Your task to perform on an android device: Go to calendar. Show me events next week Image 0: 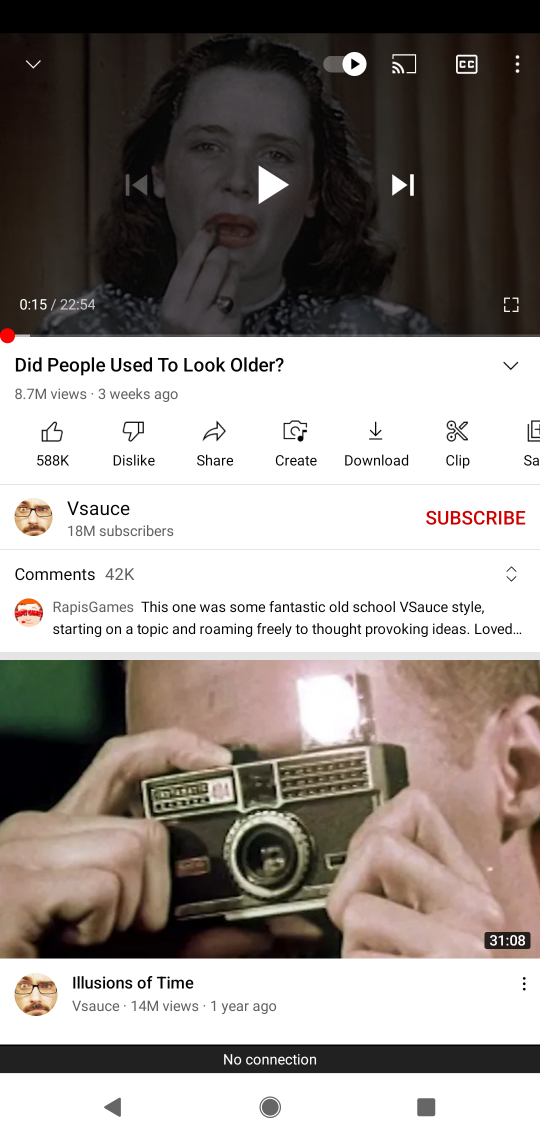
Step 0: press home button
Your task to perform on an android device: Go to calendar. Show me events next week Image 1: 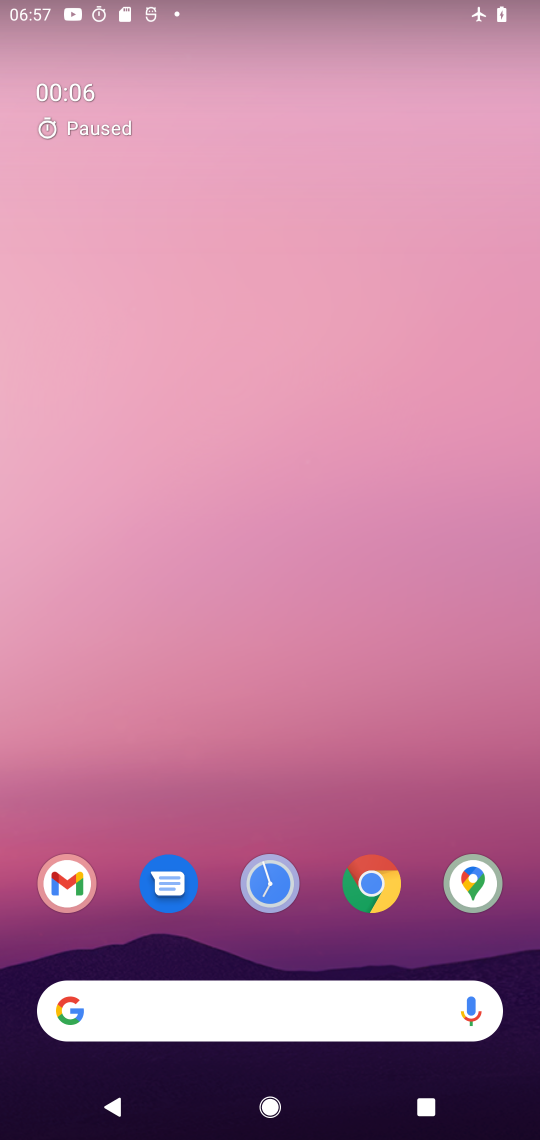
Step 1: drag from (238, 989) to (134, 341)
Your task to perform on an android device: Go to calendar. Show me events next week Image 2: 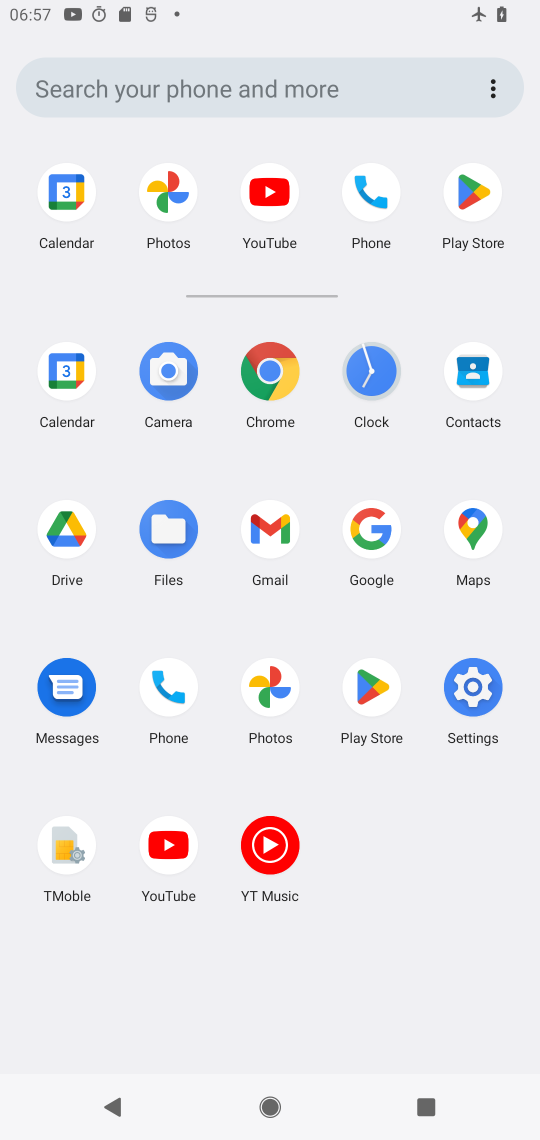
Step 2: click (59, 188)
Your task to perform on an android device: Go to calendar. Show me events next week Image 3: 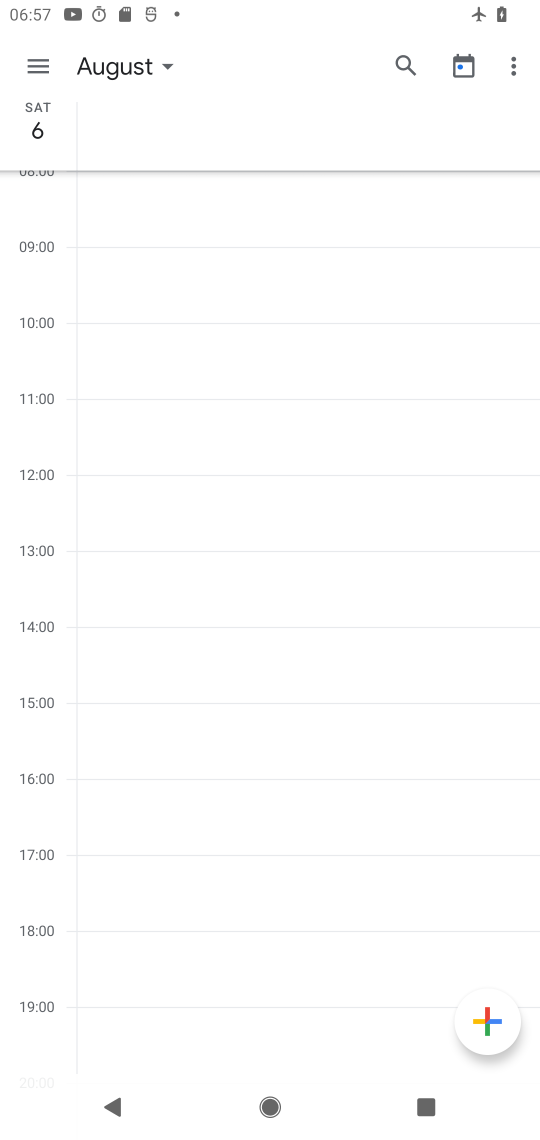
Step 3: click (112, 70)
Your task to perform on an android device: Go to calendar. Show me events next week Image 4: 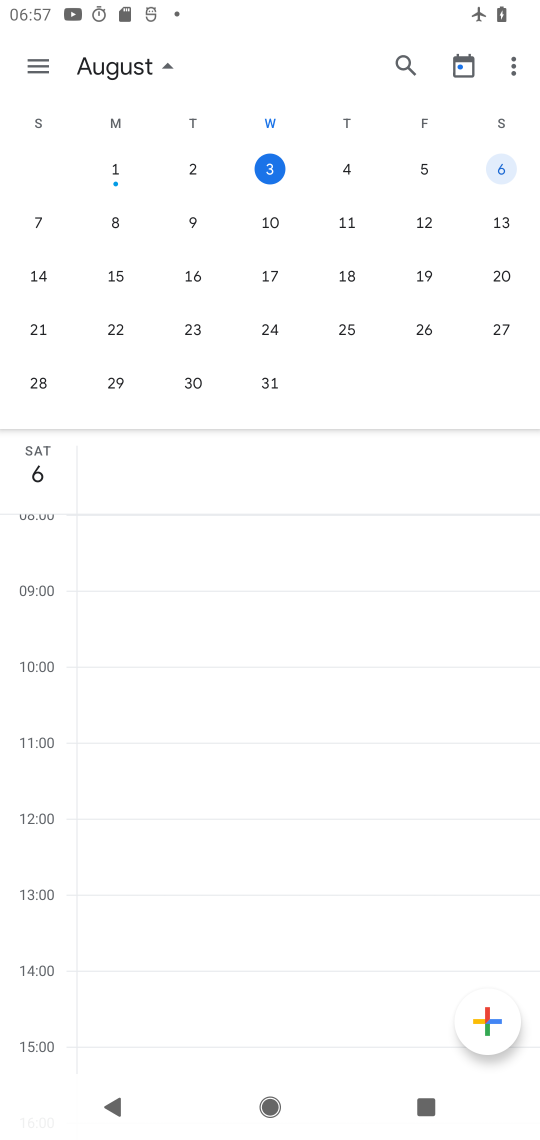
Step 4: click (492, 219)
Your task to perform on an android device: Go to calendar. Show me events next week Image 5: 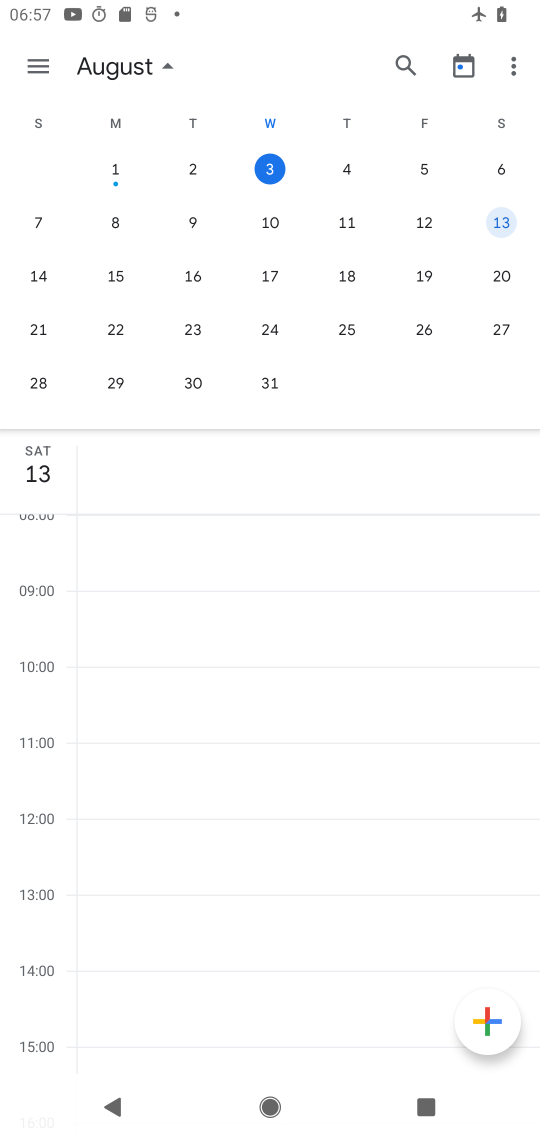
Step 5: click (27, 279)
Your task to perform on an android device: Go to calendar. Show me events next week Image 6: 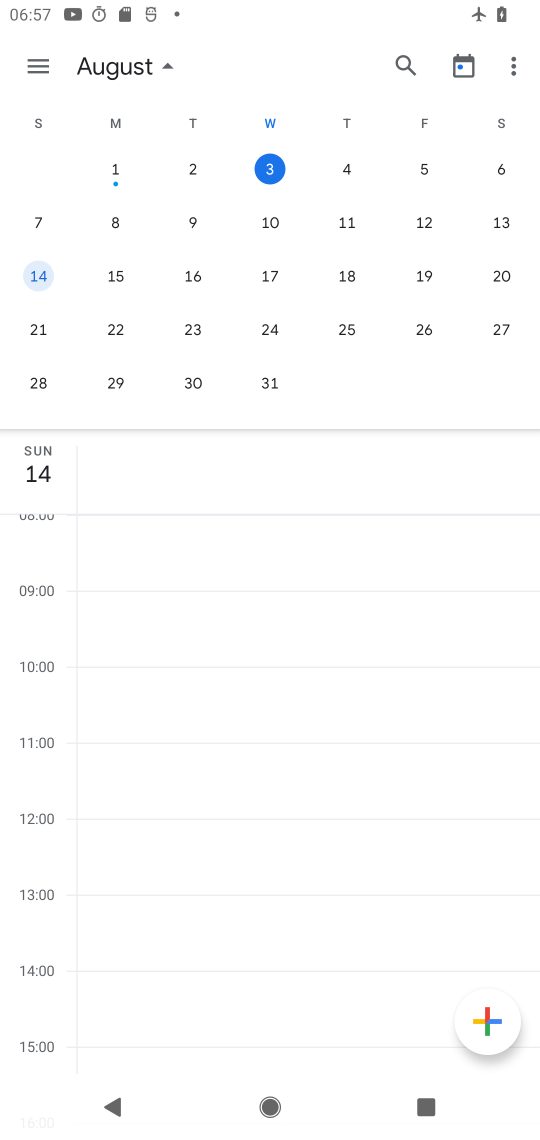
Step 6: task complete